Your task to perform on an android device: turn on priority inbox in the gmail app Image 0: 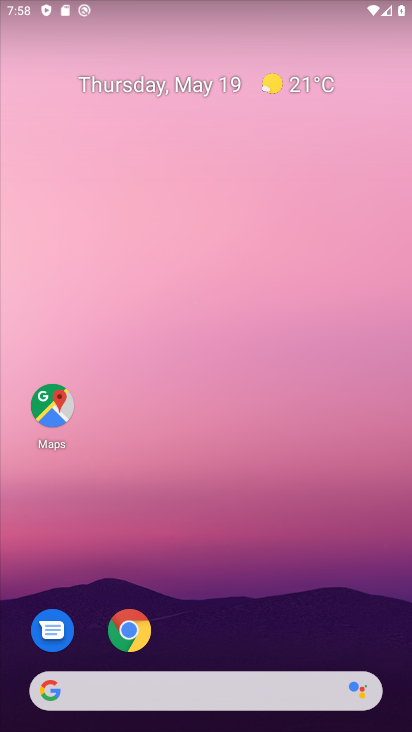
Step 0: drag from (296, 629) to (247, 141)
Your task to perform on an android device: turn on priority inbox in the gmail app Image 1: 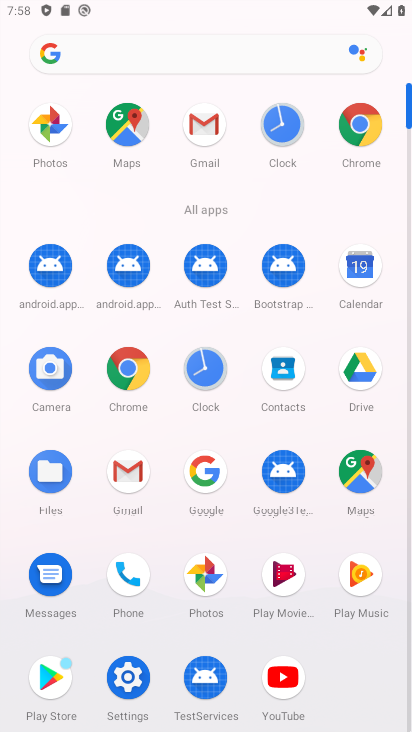
Step 1: click (213, 129)
Your task to perform on an android device: turn on priority inbox in the gmail app Image 2: 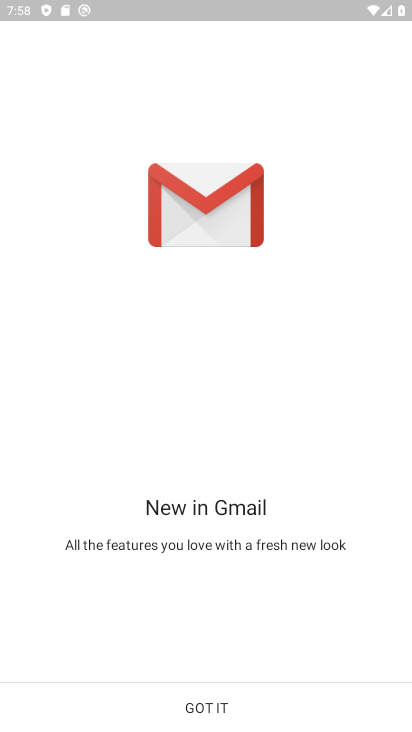
Step 2: click (222, 715)
Your task to perform on an android device: turn on priority inbox in the gmail app Image 3: 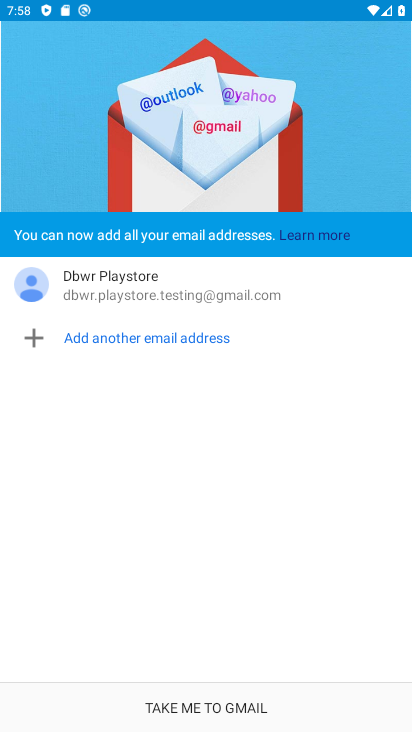
Step 3: click (222, 715)
Your task to perform on an android device: turn on priority inbox in the gmail app Image 4: 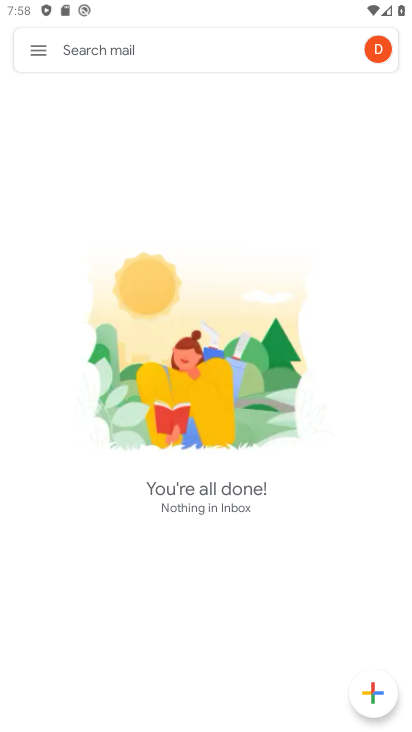
Step 4: click (42, 46)
Your task to perform on an android device: turn on priority inbox in the gmail app Image 5: 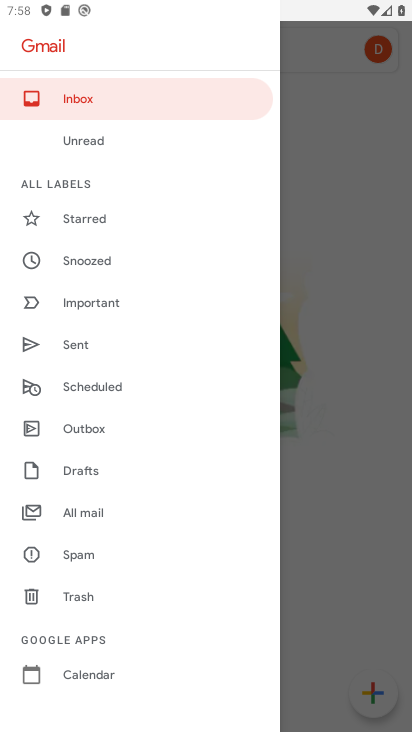
Step 5: drag from (126, 614) to (184, 248)
Your task to perform on an android device: turn on priority inbox in the gmail app Image 6: 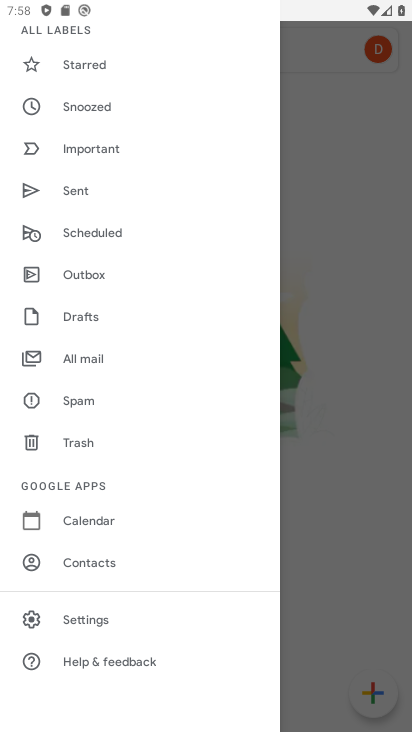
Step 6: click (94, 617)
Your task to perform on an android device: turn on priority inbox in the gmail app Image 7: 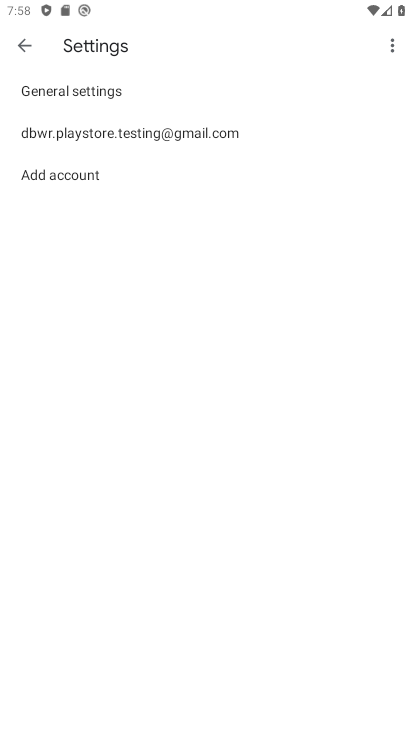
Step 7: click (92, 127)
Your task to perform on an android device: turn on priority inbox in the gmail app Image 8: 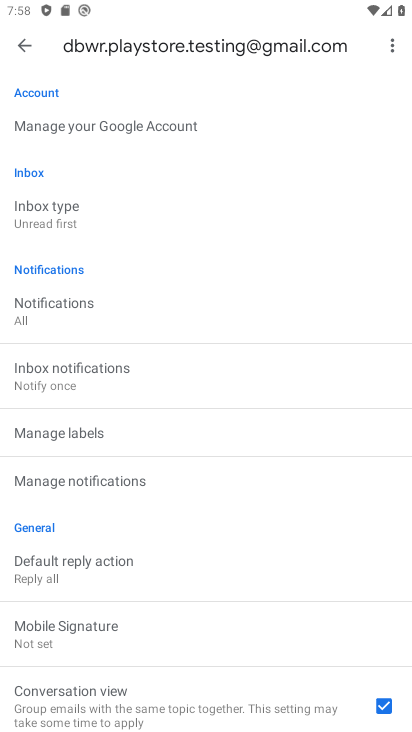
Step 8: click (71, 216)
Your task to perform on an android device: turn on priority inbox in the gmail app Image 9: 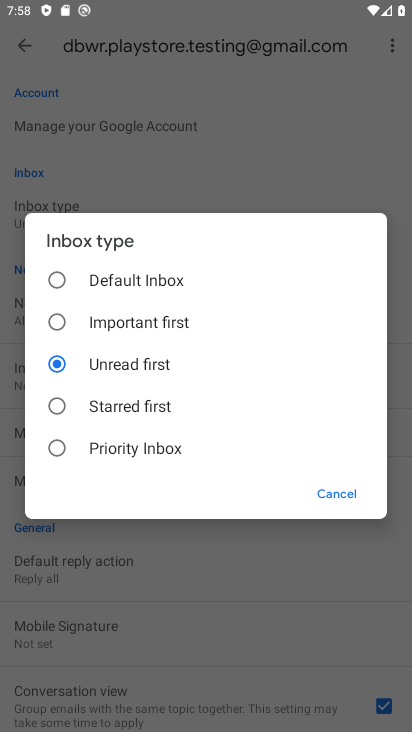
Step 9: click (120, 449)
Your task to perform on an android device: turn on priority inbox in the gmail app Image 10: 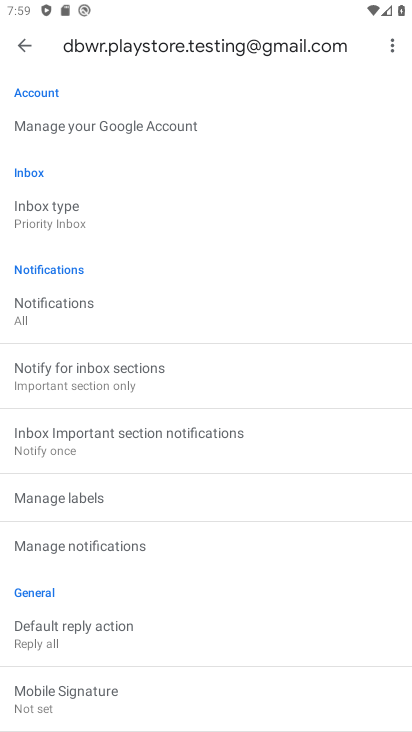
Step 10: task complete